Your task to perform on an android device: change the clock style Image 0: 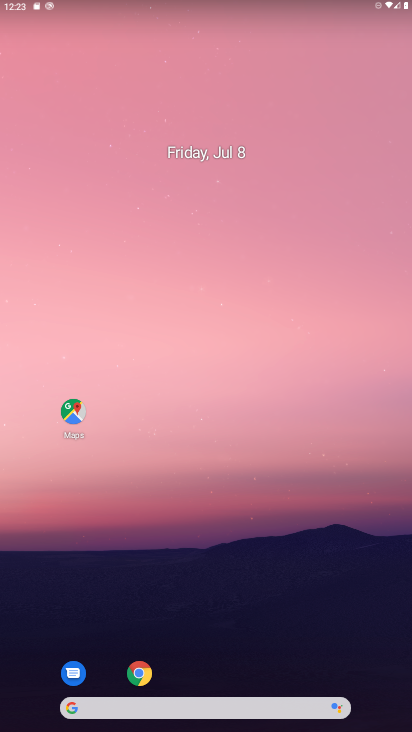
Step 0: drag from (364, 683) to (297, 114)
Your task to perform on an android device: change the clock style Image 1: 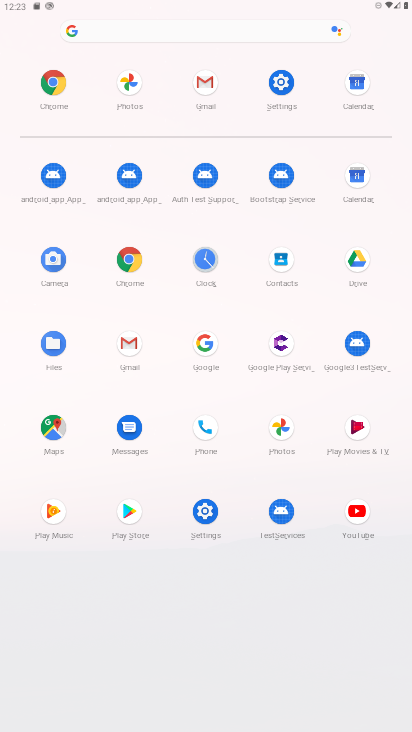
Step 1: click (212, 259)
Your task to perform on an android device: change the clock style Image 2: 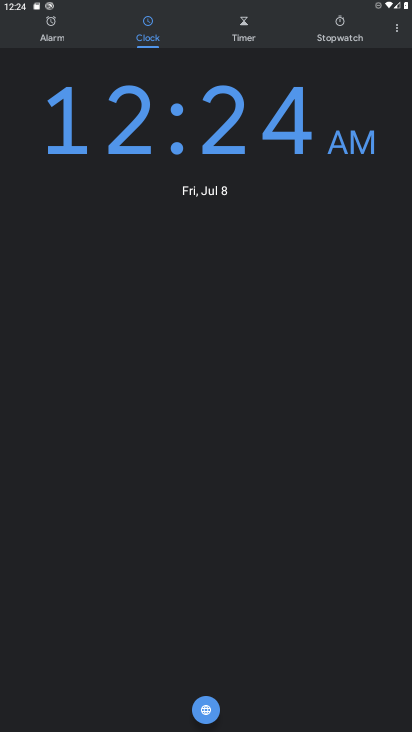
Step 2: click (398, 29)
Your task to perform on an android device: change the clock style Image 3: 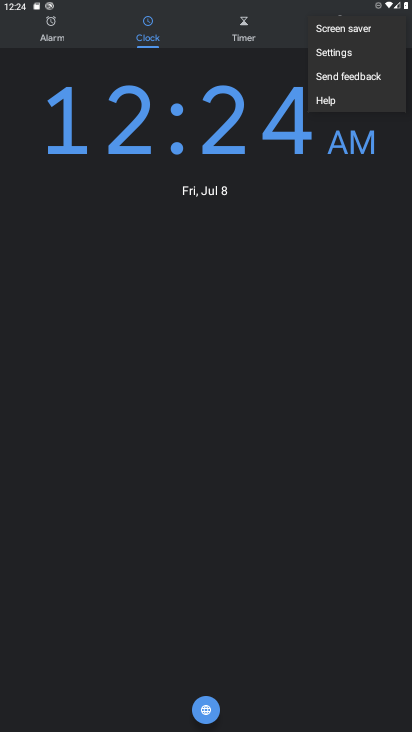
Step 3: click (329, 57)
Your task to perform on an android device: change the clock style Image 4: 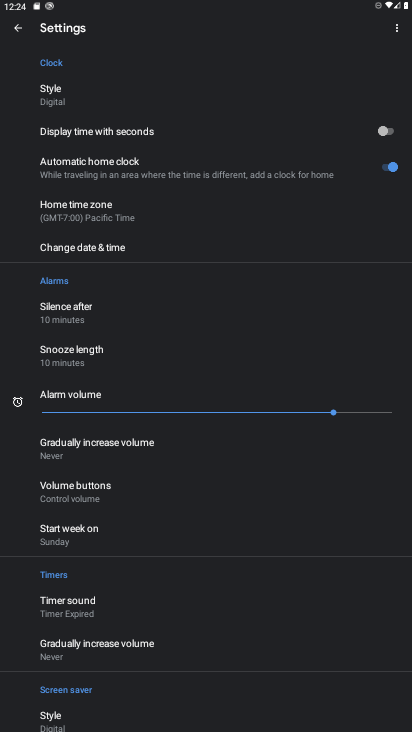
Step 4: click (54, 93)
Your task to perform on an android device: change the clock style Image 5: 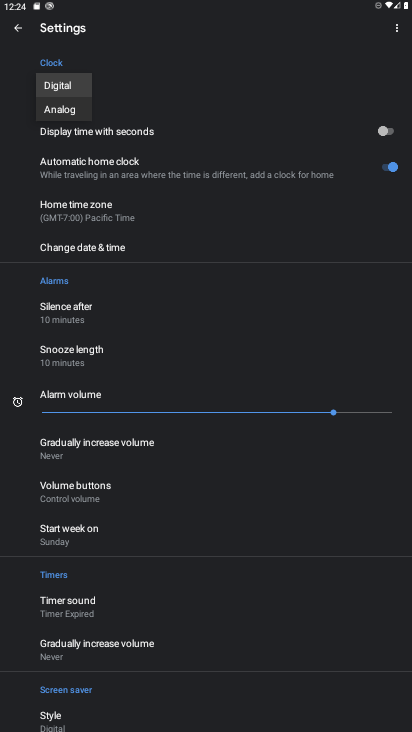
Step 5: click (65, 112)
Your task to perform on an android device: change the clock style Image 6: 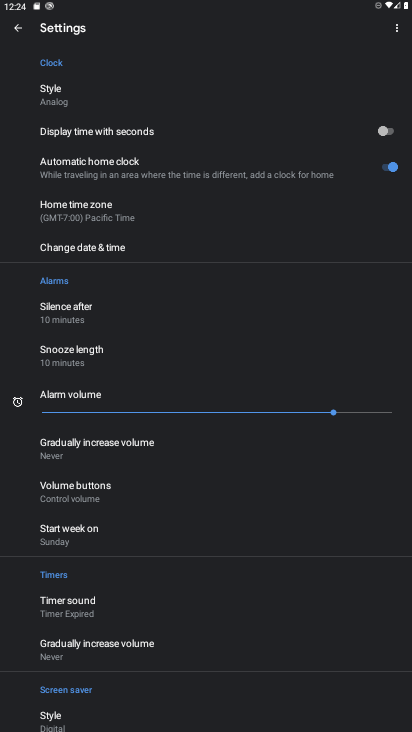
Step 6: task complete